Your task to perform on an android device: Open Chrome and go to settings Image 0: 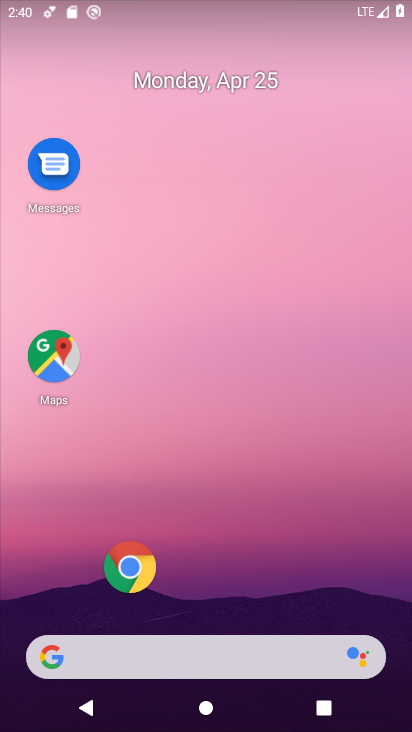
Step 0: drag from (205, 512) to (214, 171)
Your task to perform on an android device: Open Chrome and go to settings Image 1: 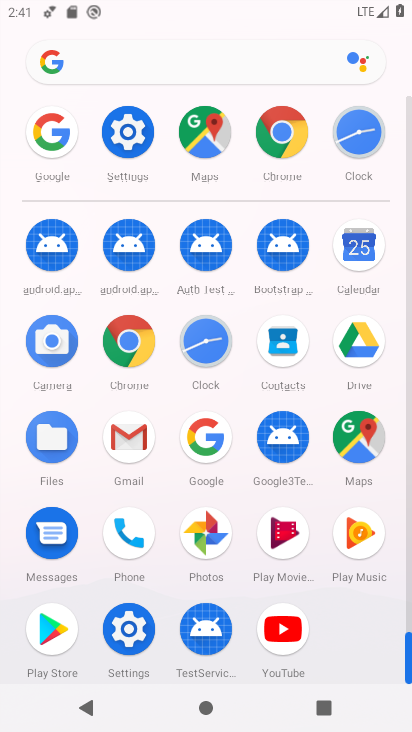
Step 1: click (120, 363)
Your task to perform on an android device: Open Chrome and go to settings Image 2: 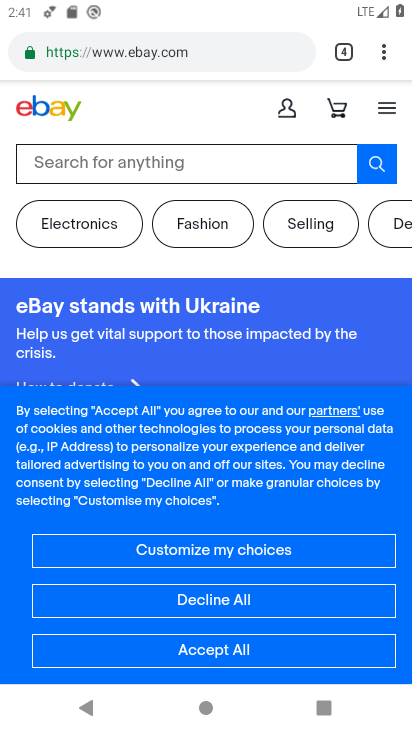
Step 2: click (377, 57)
Your task to perform on an android device: Open Chrome and go to settings Image 3: 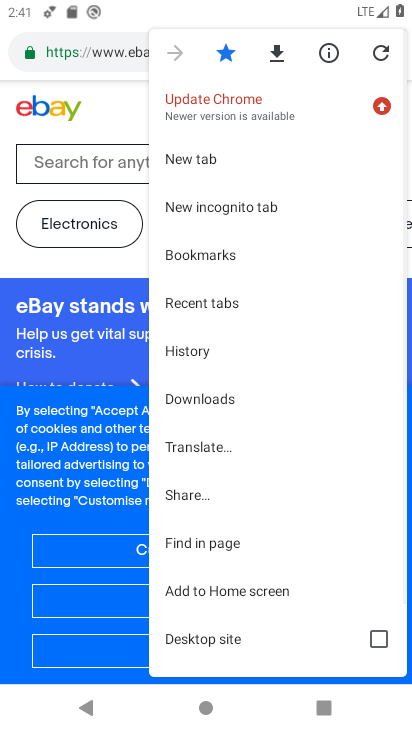
Step 3: drag from (323, 481) to (404, 47)
Your task to perform on an android device: Open Chrome and go to settings Image 4: 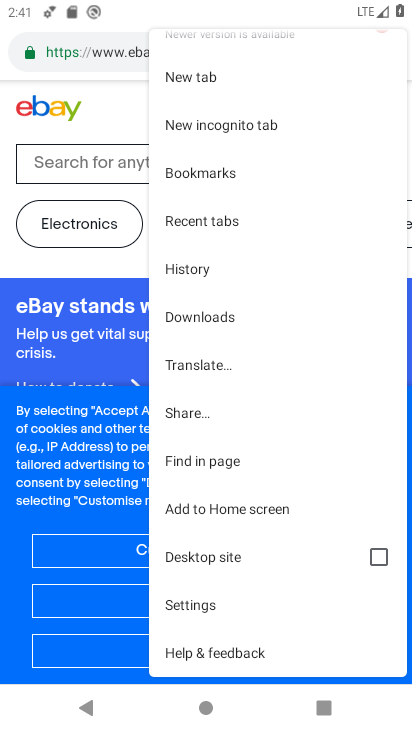
Step 4: click (246, 600)
Your task to perform on an android device: Open Chrome and go to settings Image 5: 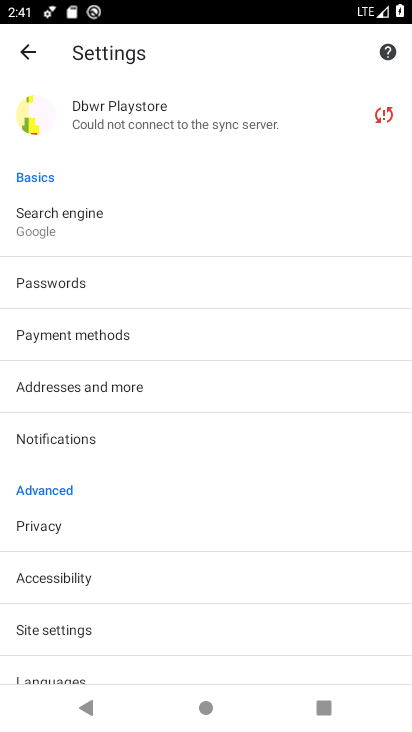
Step 5: task complete